Your task to perform on an android device: Check the weather Image 0: 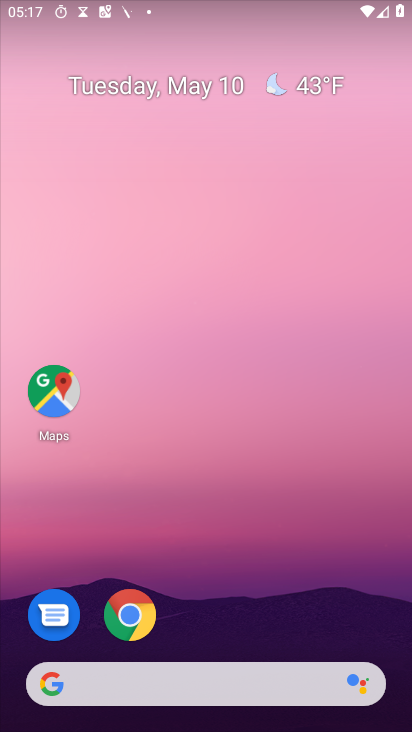
Step 0: drag from (321, 642) to (330, 48)
Your task to perform on an android device: Check the weather Image 1: 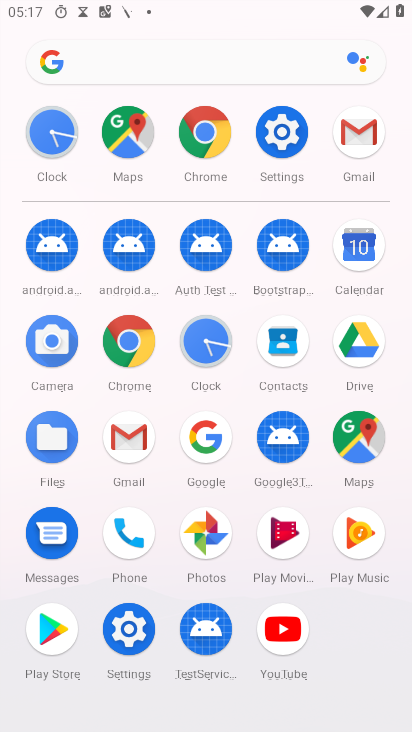
Step 1: click (133, 334)
Your task to perform on an android device: Check the weather Image 2: 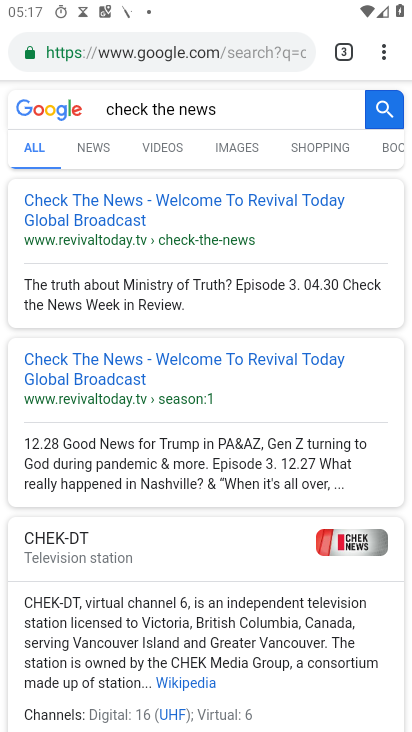
Step 2: click (273, 48)
Your task to perform on an android device: Check the weather Image 3: 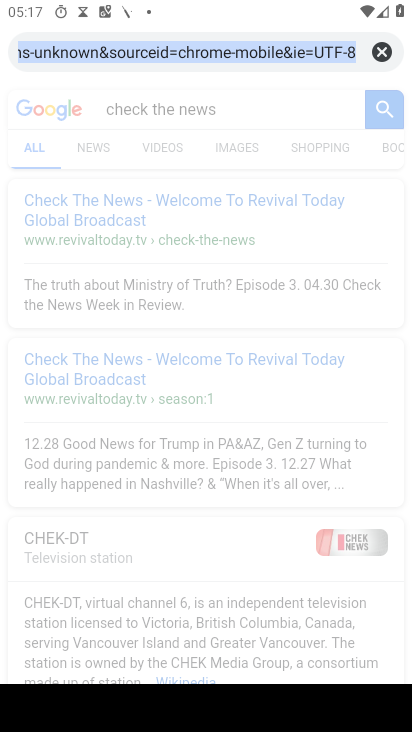
Step 3: click (380, 47)
Your task to perform on an android device: Check the weather Image 4: 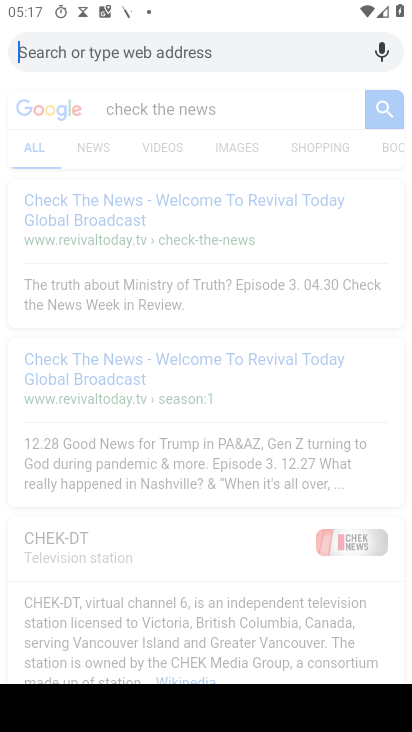
Step 4: type "check the weather"
Your task to perform on an android device: Check the weather Image 5: 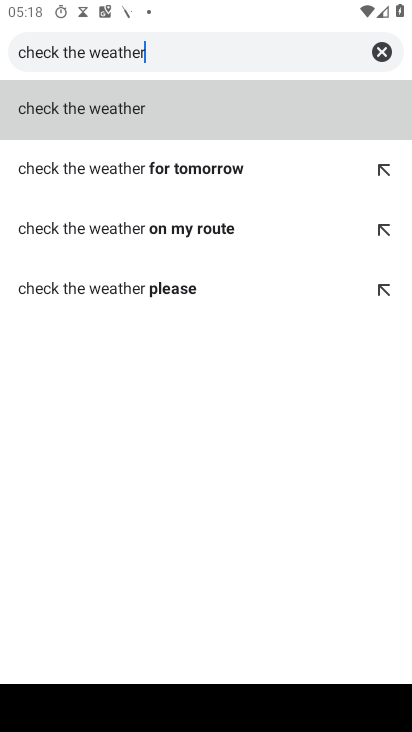
Step 5: click (79, 106)
Your task to perform on an android device: Check the weather Image 6: 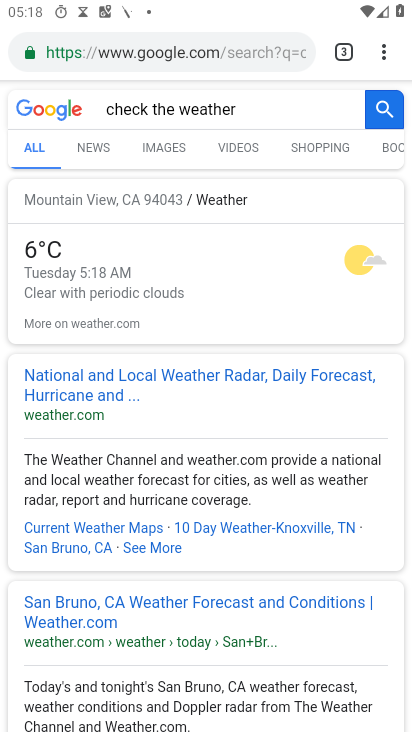
Step 6: task complete